Your task to perform on an android device: open the mobile data screen to see how much data has been used Image 0: 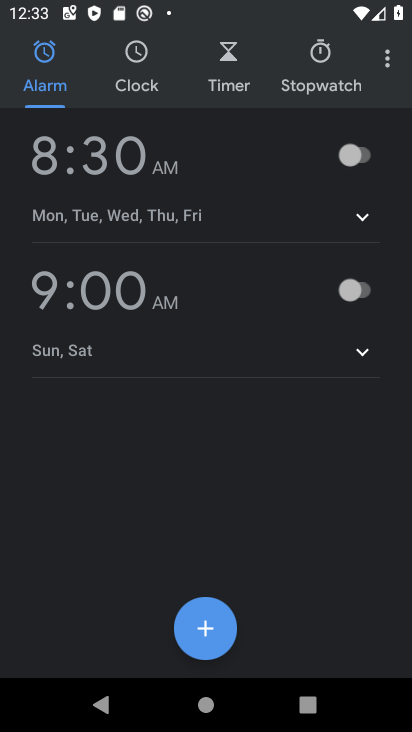
Step 0: press home button
Your task to perform on an android device: open the mobile data screen to see how much data has been used Image 1: 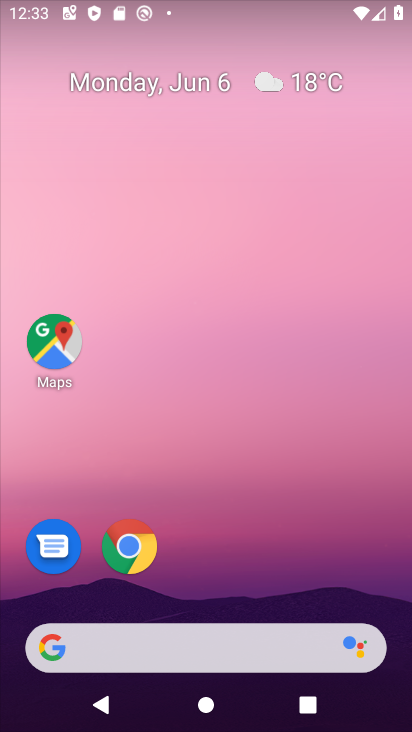
Step 1: drag from (261, 578) to (255, 200)
Your task to perform on an android device: open the mobile data screen to see how much data has been used Image 2: 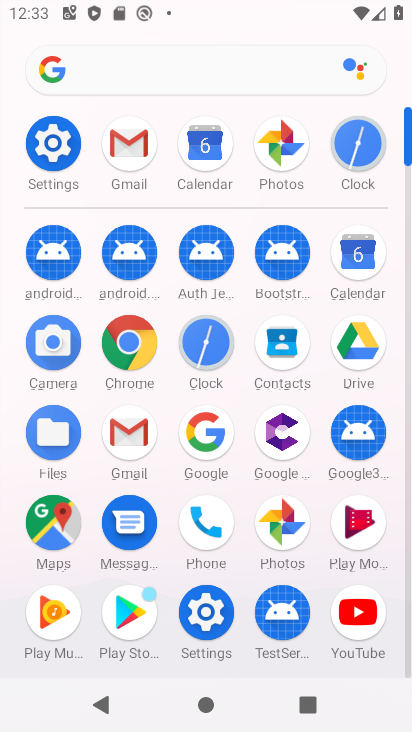
Step 2: click (39, 154)
Your task to perform on an android device: open the mobile data screen to see how much data has been used Image 3: 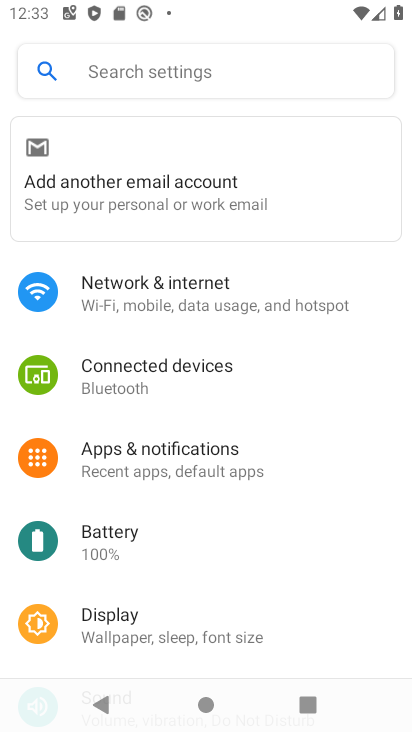
Step 3: click (223, 284)
Your task to perform on an android device: open the mobile data screen to see how much data has been used Image 4: 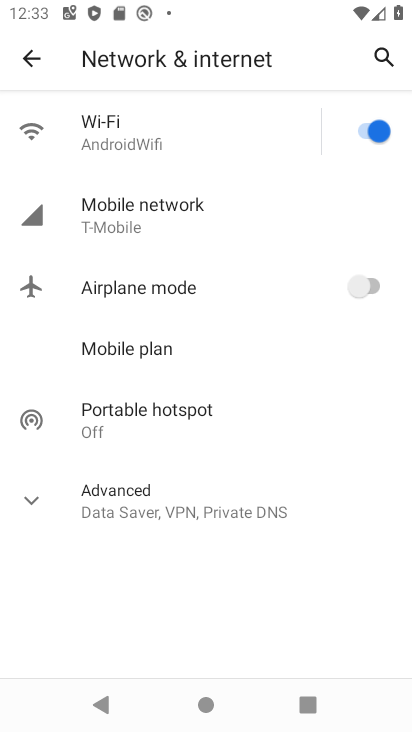
Step 4: click (194, 218)
Your task to perform on an android device: open the mobile data screen to see how much data has been used Image 5: 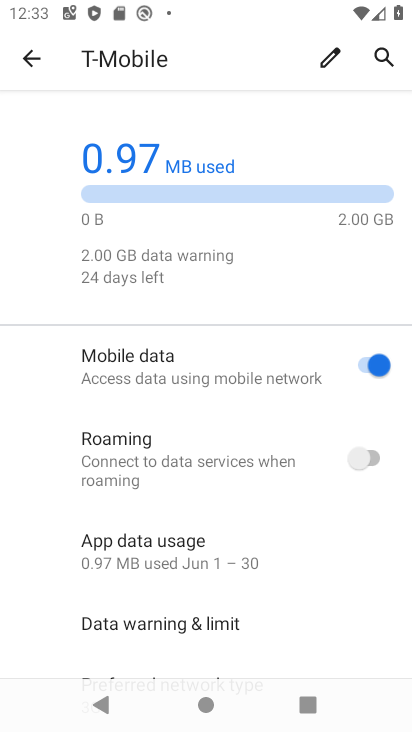
Step 5: task complete